Your task to perform on an android device: check the backup settings in the google photos Image 0: 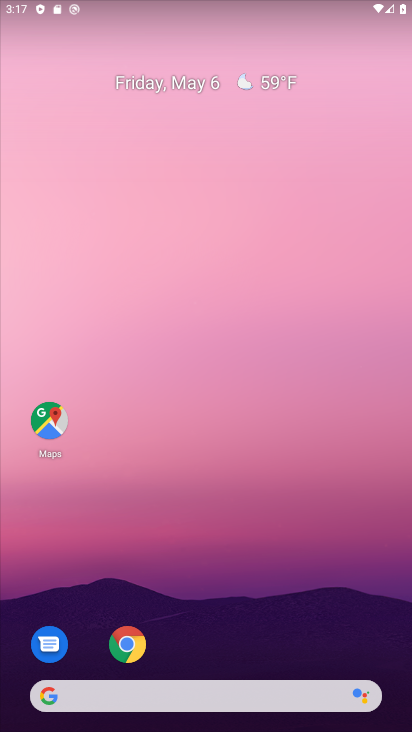
Step 0: drag from (246, 623) to (212, 109)
Your task to perform on an android device: check the backup settings in the google photos Image 1: 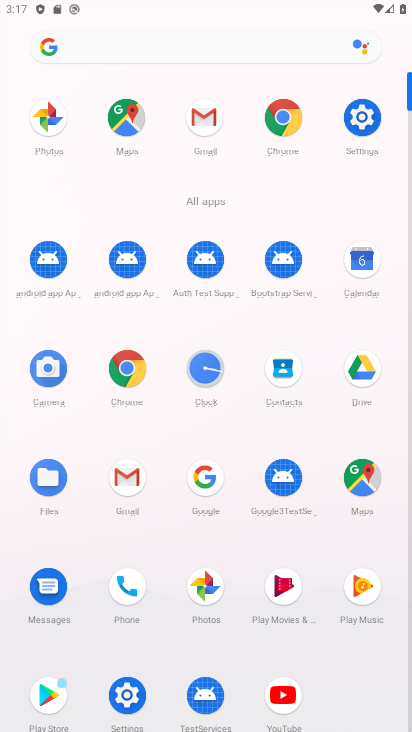
Step 1: click (48, 119)
Your task to perform on an android device: check the backup settings in the google photos Image 2: 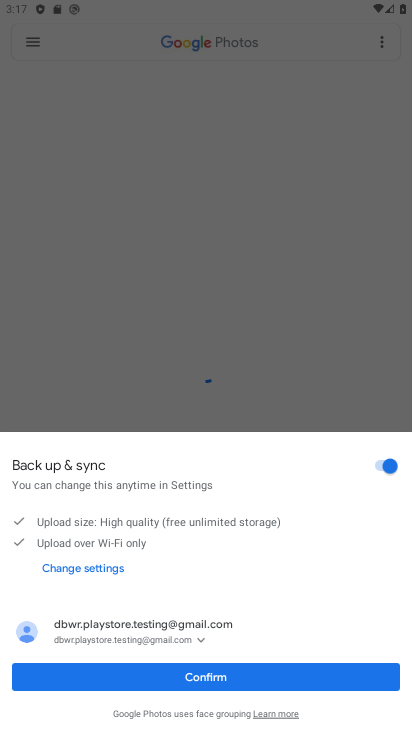
Step 2: click (205, 673)
Your task to perform on an android device: check the backup settings in the google photos Image 3: 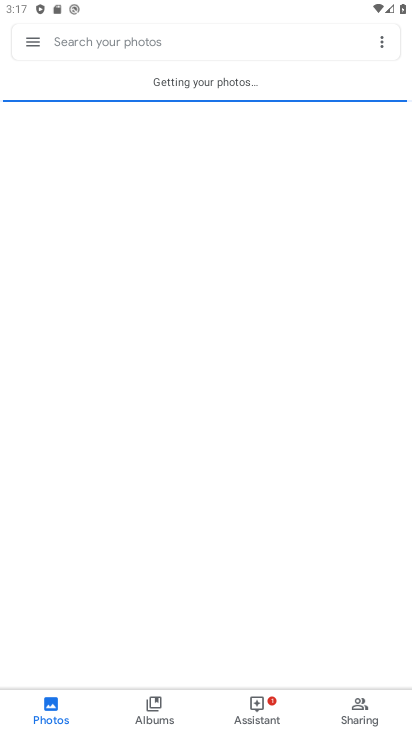
Step 3: click (33, 45)
Your task to perform on an android device: check the backup settings in the google photos Image 4: 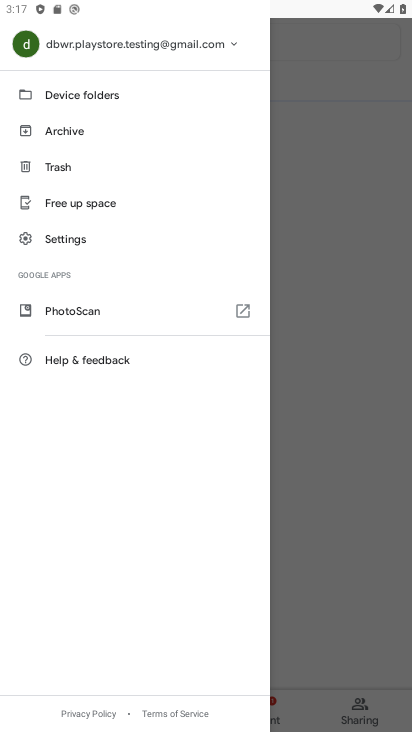
Step 4: click (70, 242)
Your task to perform on an android device: check the backup settings in the google photos Image 5: 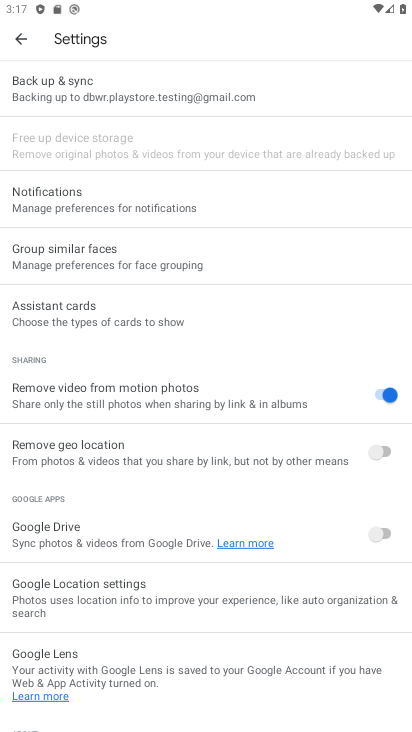
Step 5: click (86, 98)
Your task to perform on an android device: check the backup settings in the google photos Image 6: 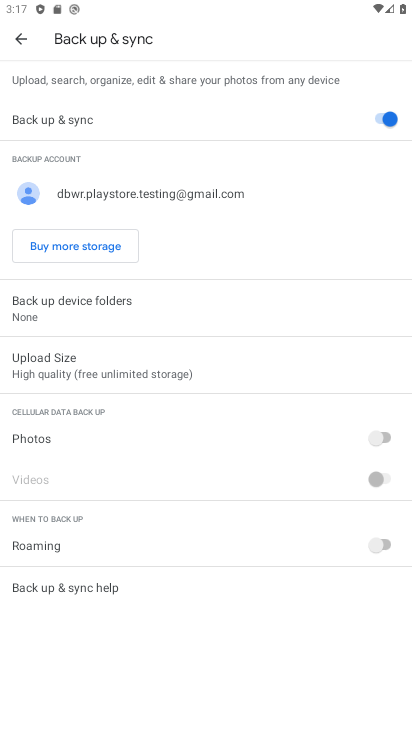
Step 6: task complete